Your task to perform on an android device: toggle translation in the chrome app Image 0: 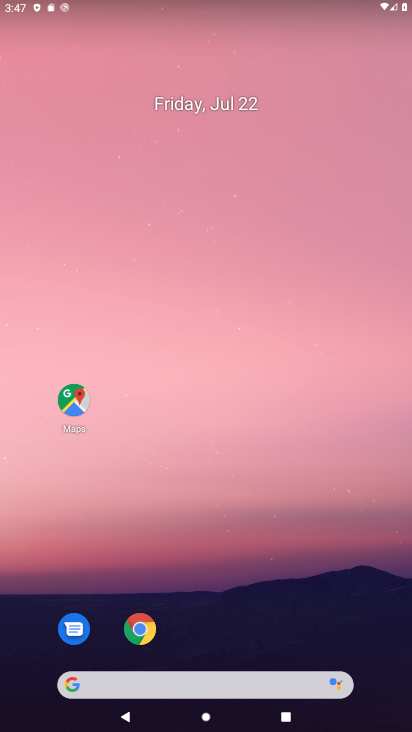
Step 0: drag from (311, 567) to (274, 124)
Your task to perform on an android device: toggle translation in the chrome app Image 1: 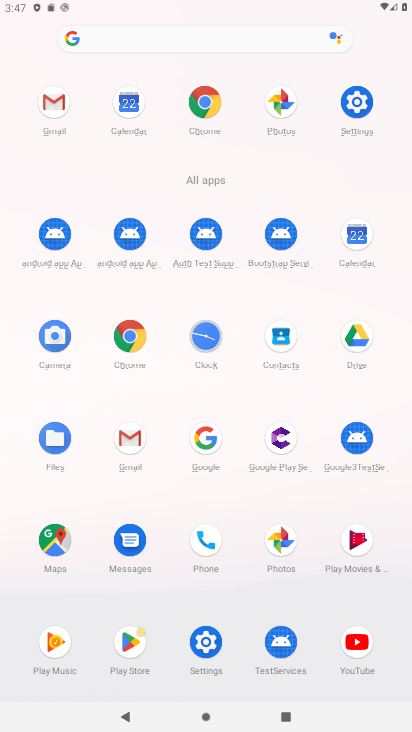
Step 1: click (205, 104)
Your task to perform on an android device: toggle translation in the chrome app Image 2: 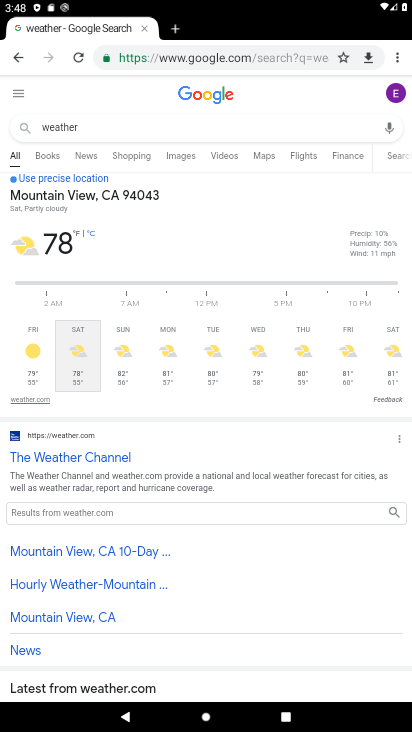
Step 2: drag from (400, 53) to (284, 381)
Your task to perform on an android device: toggle translation in the chrome app Image 3: 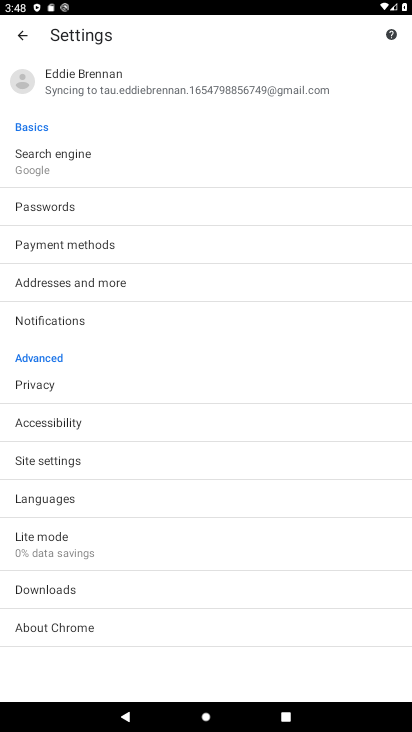
Step 3: click (69, 504)
Your task to perform on an android device: toggle translation in the chrome app Image 4: 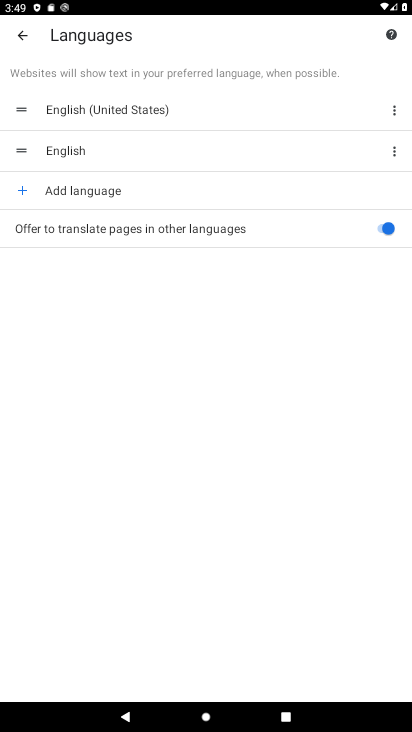
Step 4: click (385, 225)
Your task to perform on an android device: toggle translation in the chrome app Image 5: 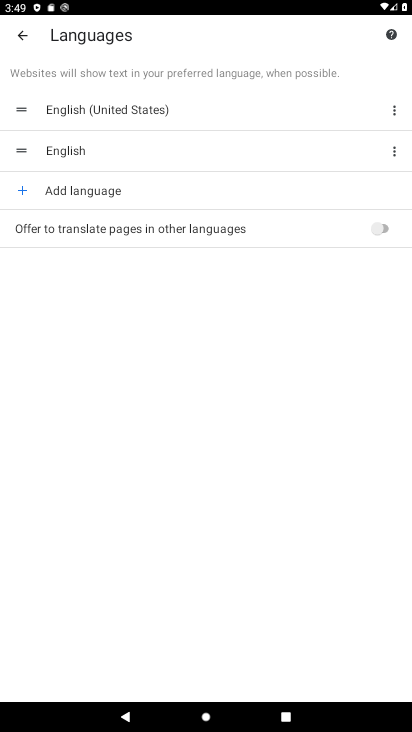
Step 5: task complete